Your task to perform on an android device: Open internet settings Image 0: 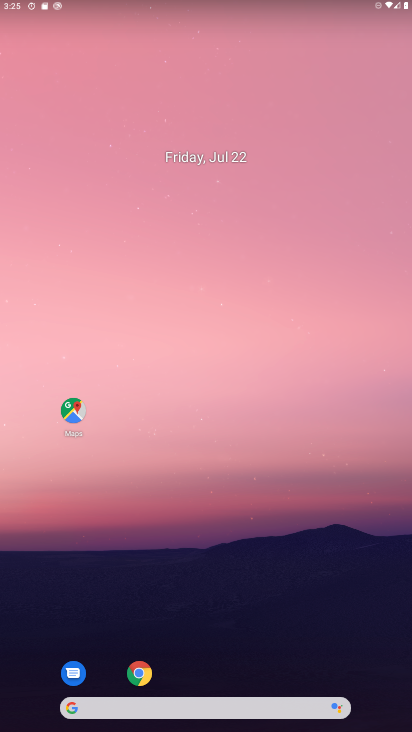
Step 0: drag from (201, 648) to (274, 97)
Your task to perform on an android device: Open internet settings Image 1: 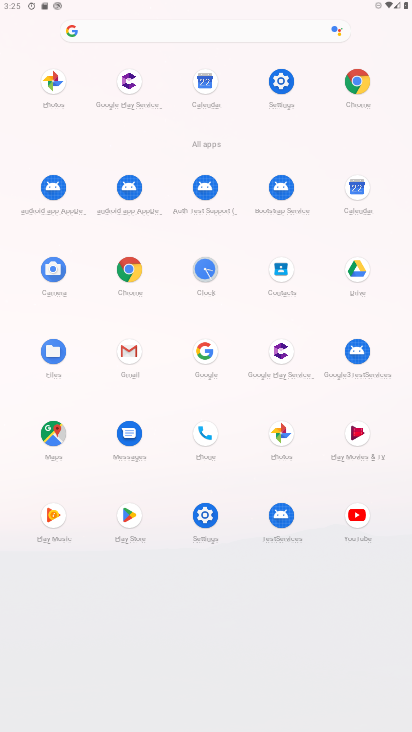
Step 1: click (207, 517)
Your task to perform on an android device: Open internet settings Image 2: 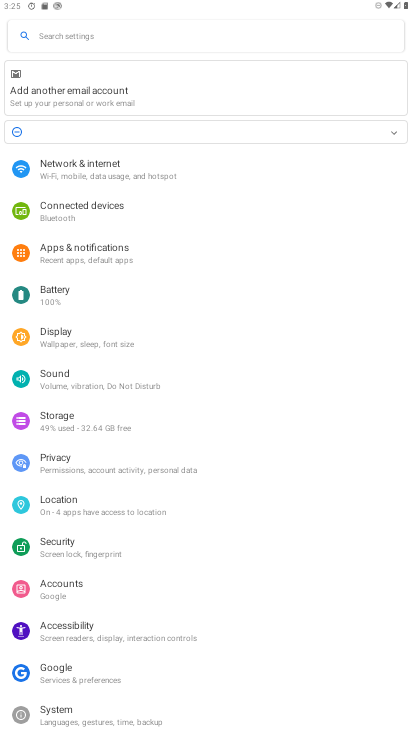
Step 2: click (116, 47)
Your task to perform on an android device: Open internet settings Image 3: 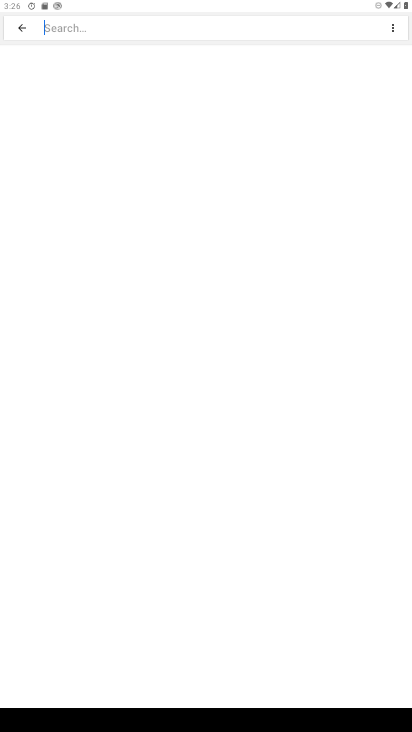
Step 3: press home button
Your task to perform on an android device: Open internet settings Image 4: 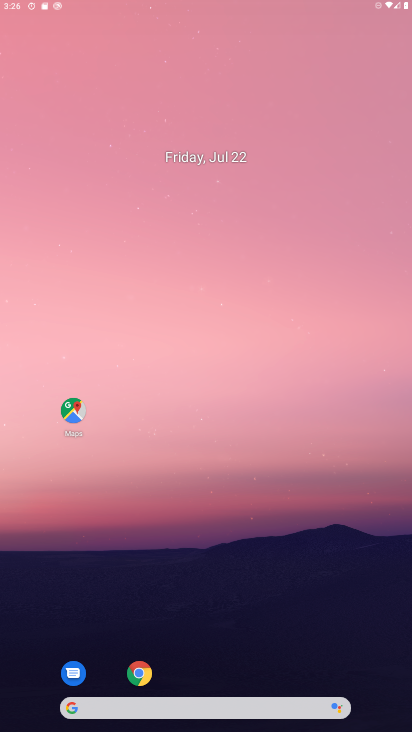
Step 4: drag from (148, 593) to (237, 138)
Your task to perform on an android device: Open internet settings Image 5: 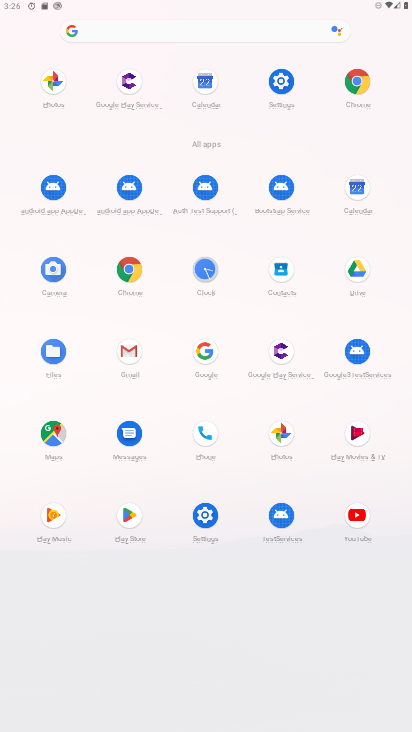
Step 5: click (286, 81)
Your task to perform on an android device: Open internet settings Image 6: 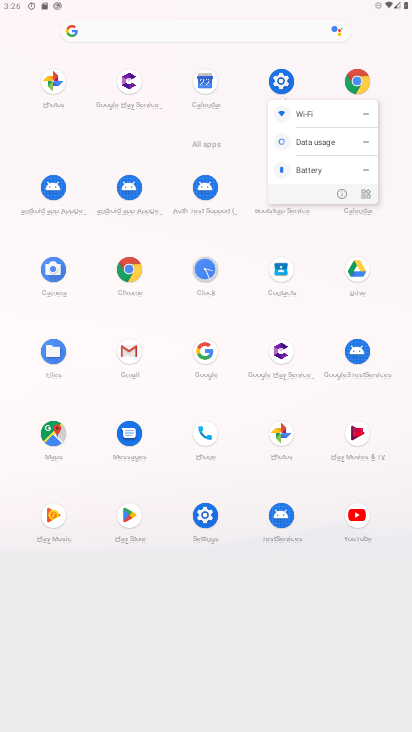
Step 6: click (346, 193)
Your task to perform on an android device: Open internet settings Image 7: 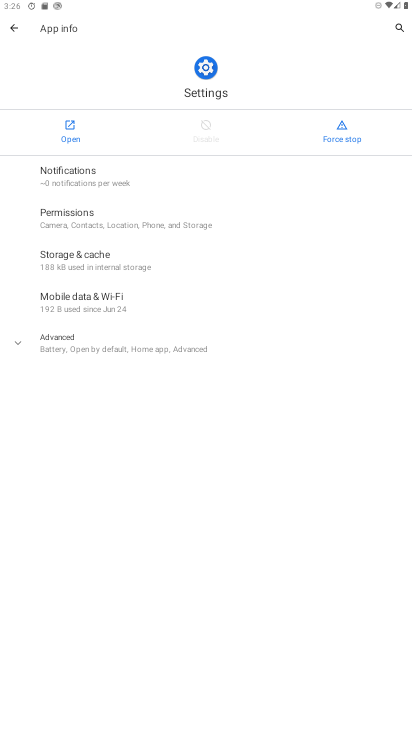
Step 7: click (75, 152)
Your task to perform on an android device: Open internet settings Image 8: 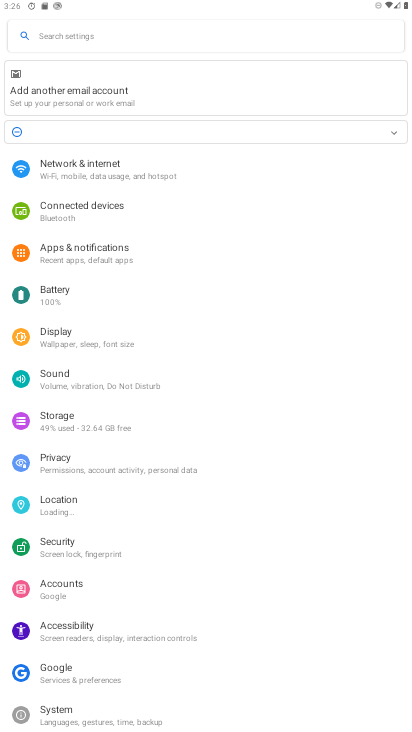
Step 8: click (99, 157)
Your task to perform on an android device: Open internet settings Image 9: 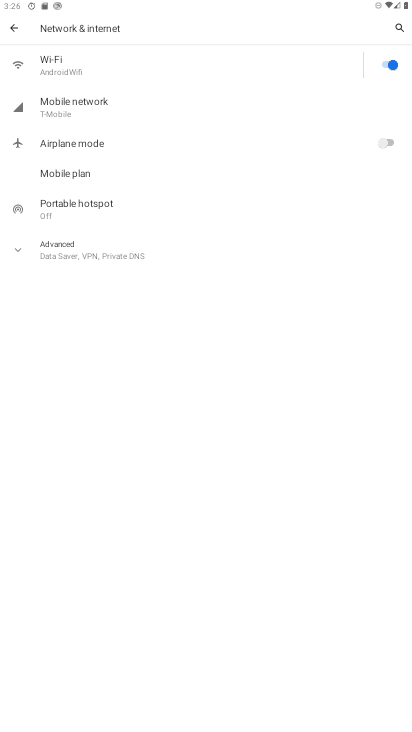
Step 9: task complete